Your task to perform on an android device: allow cookies in the chrome app Image 0: 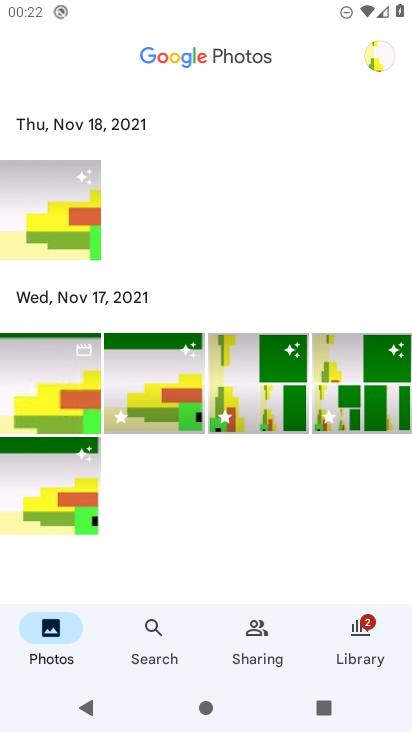
Step 0: press home button
Your task to perform on an android device: allow cookies in the chrome app Image 1: 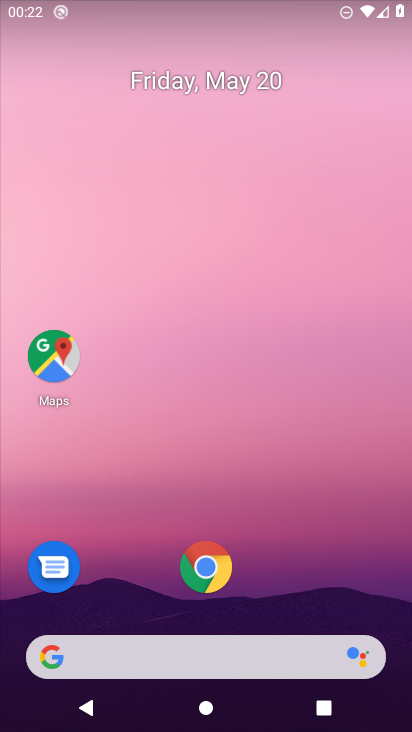
Step 1: click (206, 570)
Your task to perform on an android device: allow cookies in the chrome app Image 2: 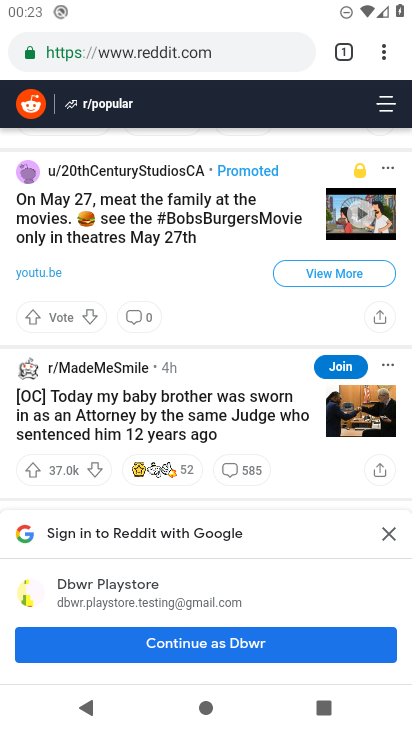
Step 2: click (382, 45)
Your task to perform on an android device: allow cookies in the chrome app Image 3: 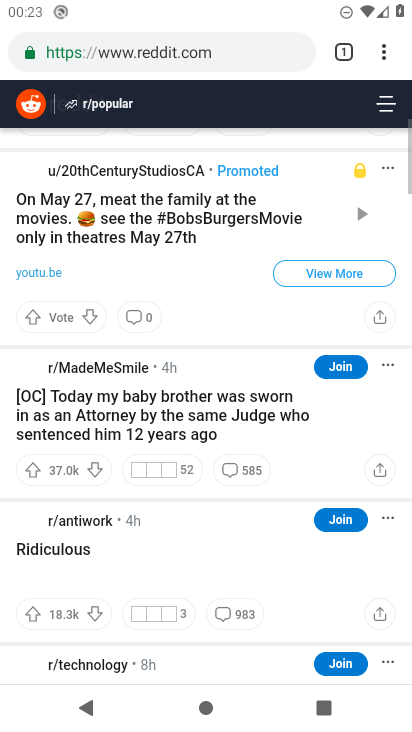
Step 3: click (384, 51)
Your task to perform on an android device: allow cookies in the chrome app Image 4: 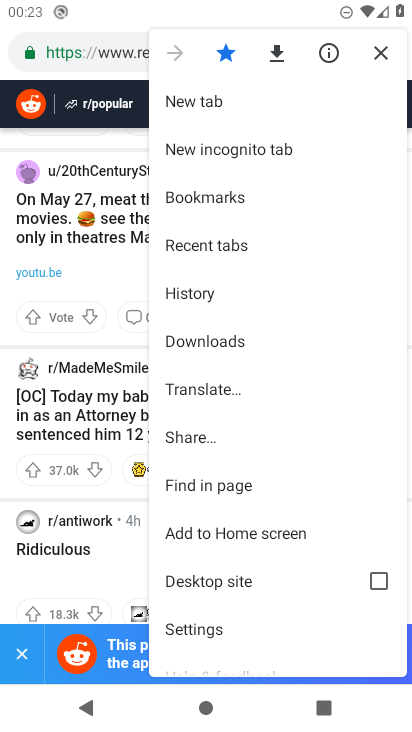
Step 4: click (222, 624)
Your task to perform on an android device: allow cookies in the chrome app Image 5: 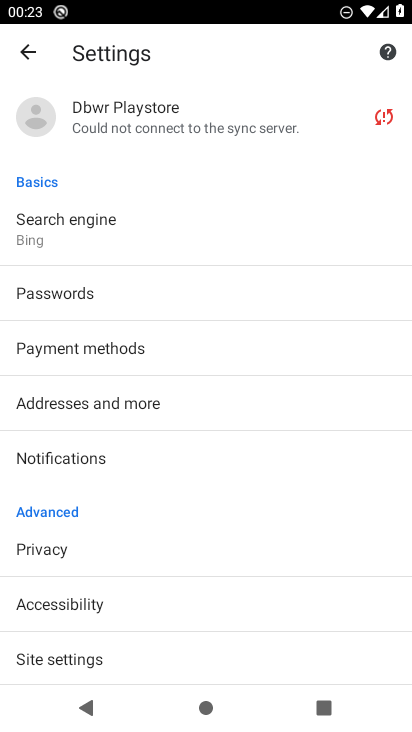
Step 5: drag from (149, 634) to (170, 287)
Your task to perform on an android device: allow cookies in the chrome app Image 6: 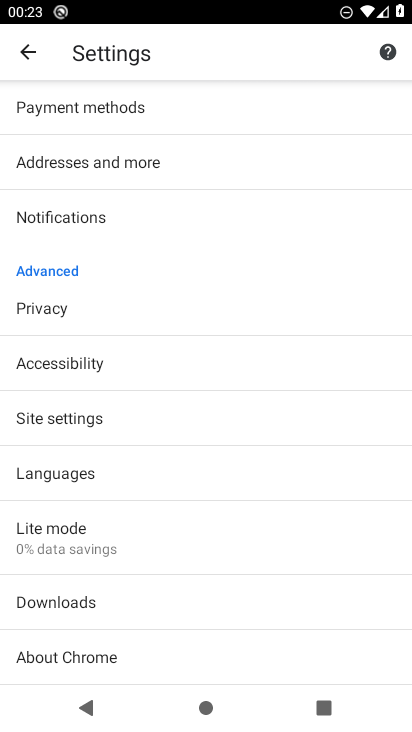
Step 6: click (113, 421)
Your task to perform on an android device: allow cookies in the chrome app Image 7: 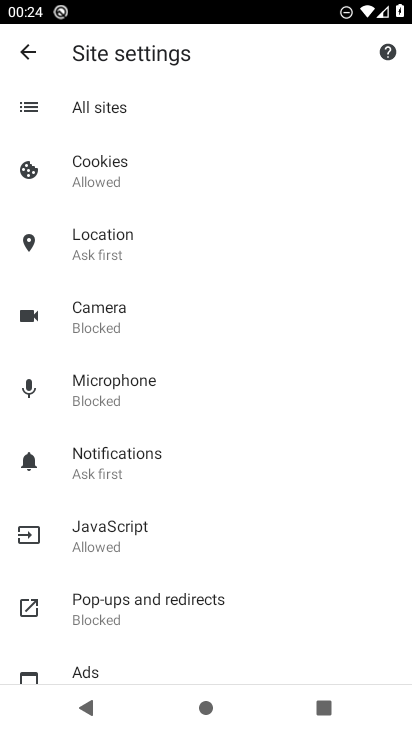
Step 7: click (112, 175)
Your task to perform on an android device: allow cookies in the chrome app Image 8: 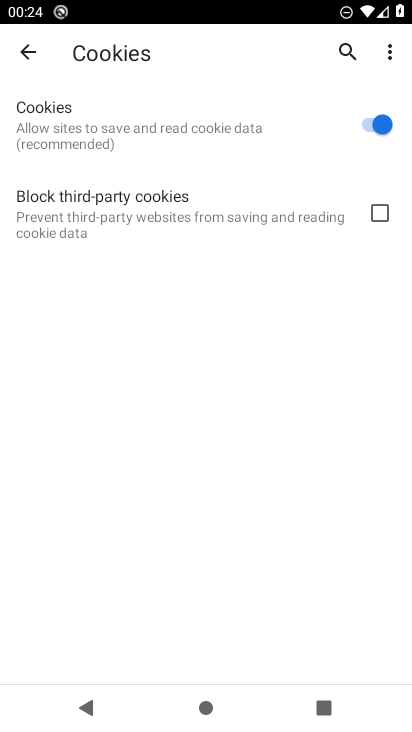
Step 8: task complete